Your task to perform on an android device: change notifications settings Image 0: 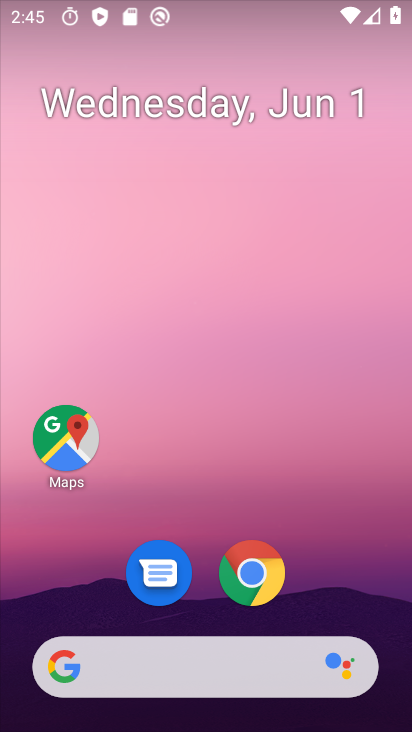
Step 0: drag from (186, 626) to (217, 253)
Your task to perform on an android device: change notifications settings Image 1: 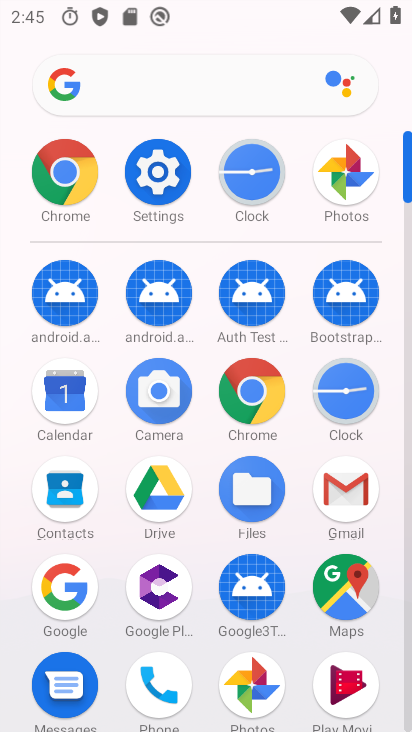
Step 1: click (174, 183)
Your task to perform on an android device: change notifications settings Image 2: 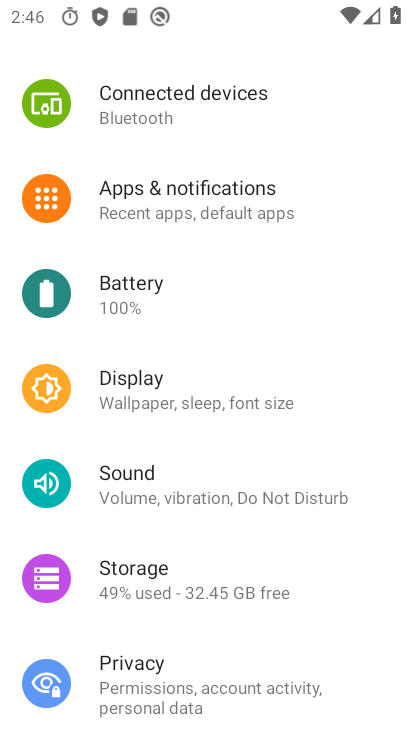
Step 2: click (175, 185)
Your task to perform on an android device: change notifications settings Image 3: 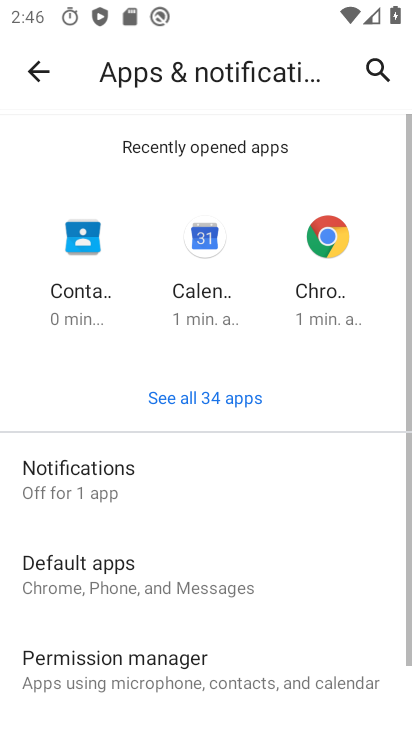
Step 3: click (180, 478)
Your task to perform on an android device: change notifications settings Image 4: 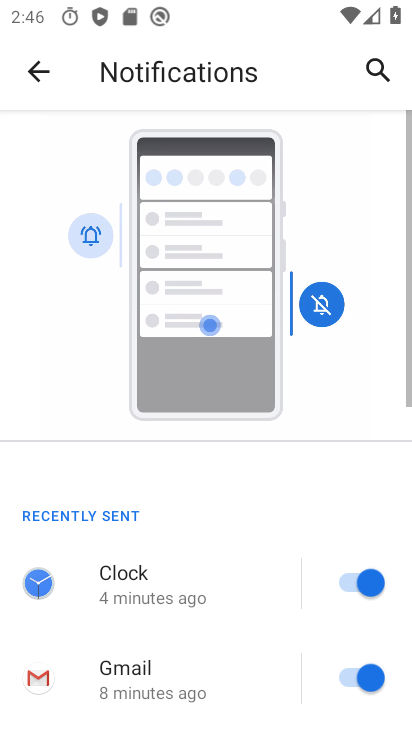
Step 4: task complete